Your task to perform on an android device: Search for vegetarian restaurants on Maps Image 0: 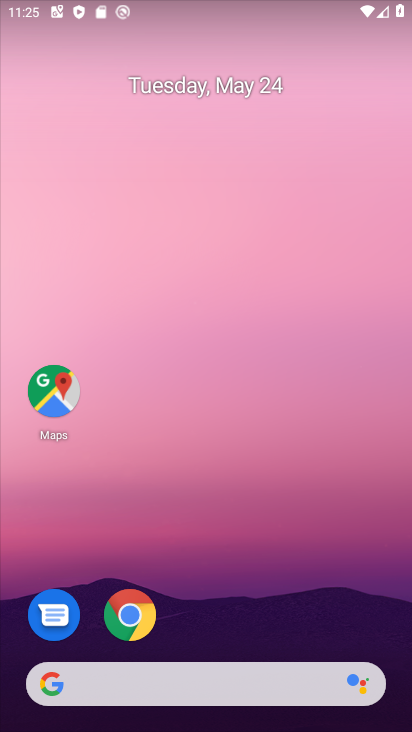
Step 0: click (42, 394)
Your task to perform on an android device: Search for vegetarian restaurants on Maps Image 1: 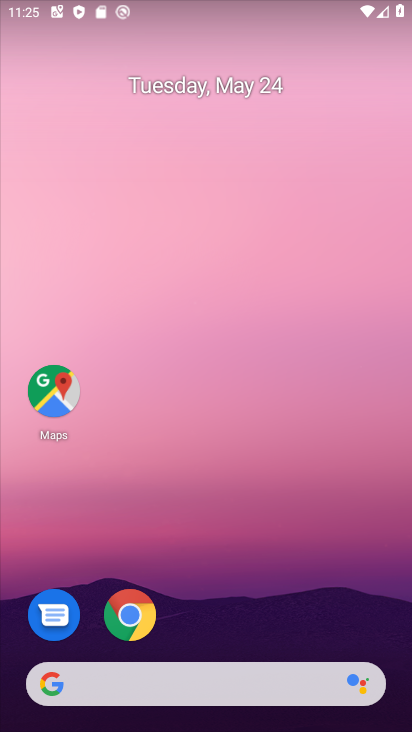
Step 1: click (59, 409)
Your task to perform on an android device: Search for vegetarian restaurants on Maps Image 2: 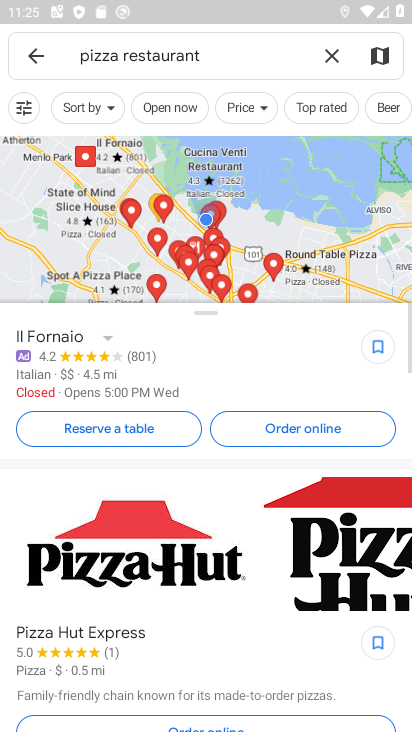
Step 2: click (337, 54)
Your task to perform on an android device: Search for vegetarian restaurants on Maps Image 3: 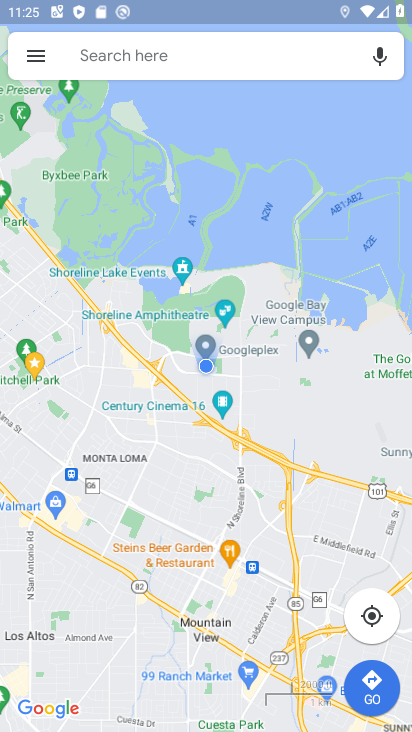
Step 3: click (158, 56)
Your task to perform on an android device: Search for vegetarian restaurants on Maps Image 4: 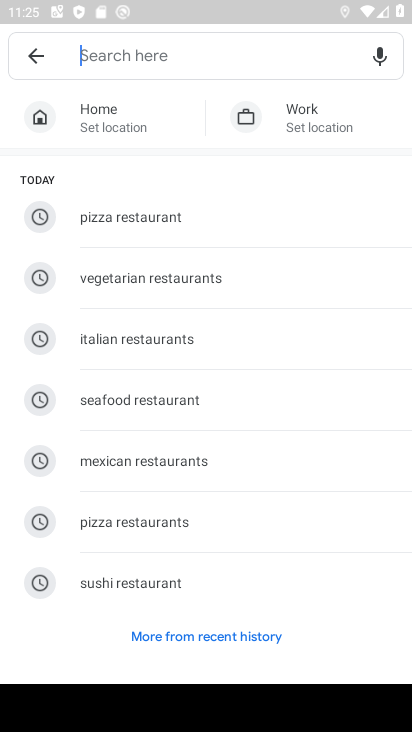
Step 4: click (170, 276)
Your task to perform on an android device: Search for vegetarian restaurants on Maps Image 5: 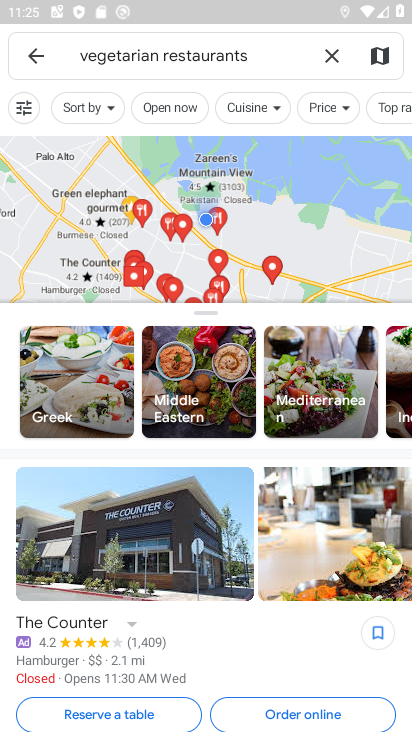
Step 5: task complete